Your task to perform on an android device: Open sound settings Image 0: 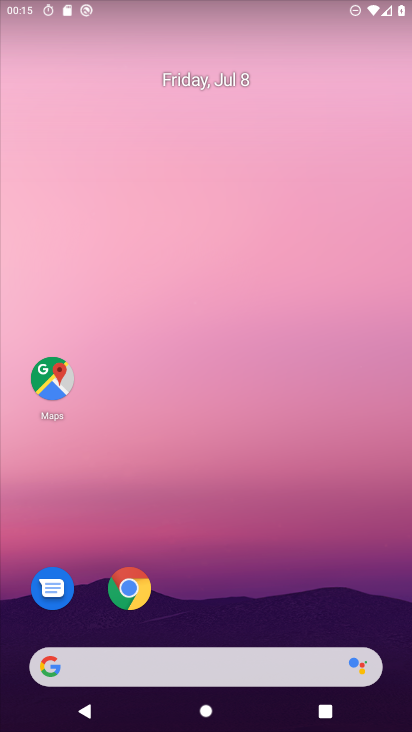
Step 0: drag from (307, 575) to (209, 0)
Your task to perform on an android device: Open sound settings Image 1: 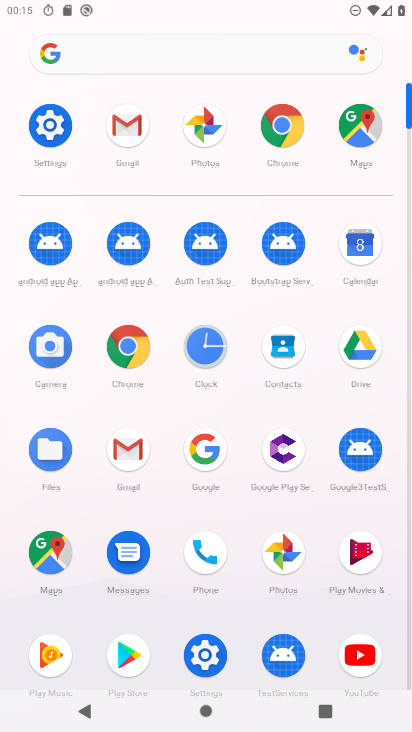
Step 1: click (44, 131)
Your task to perform on an android device: Open sound settings Image 2: 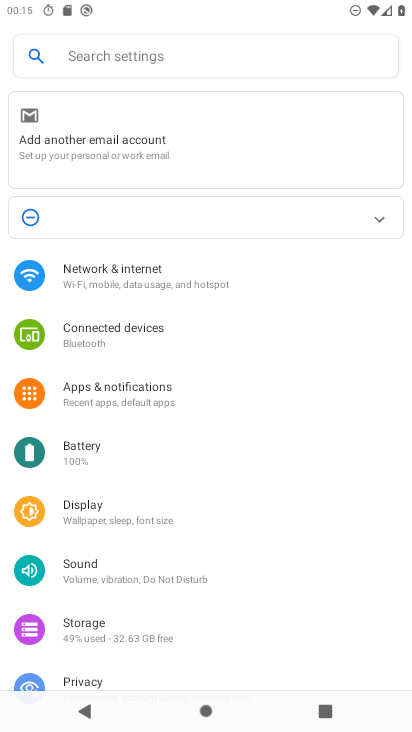
Step 2: click (99, 575)
Your task to perform on an android device: Open sound settings Image 3: 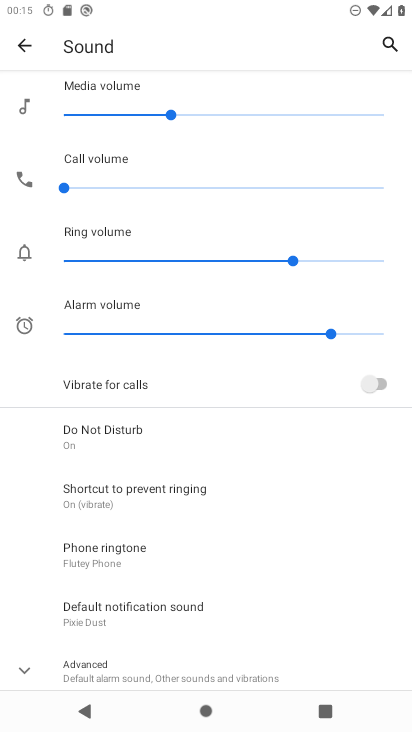
Step 3: task complete